Your task to perform on an android device: toggle notification dots Image 0: 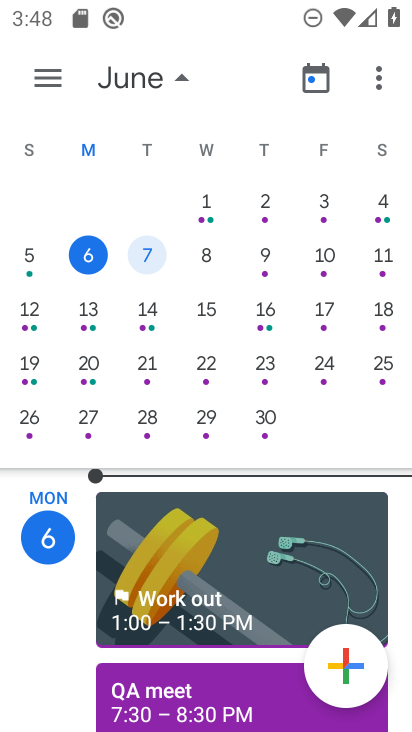
Step 0: press home button
Your task to perform on an android device: toggle notification dots Image 1: 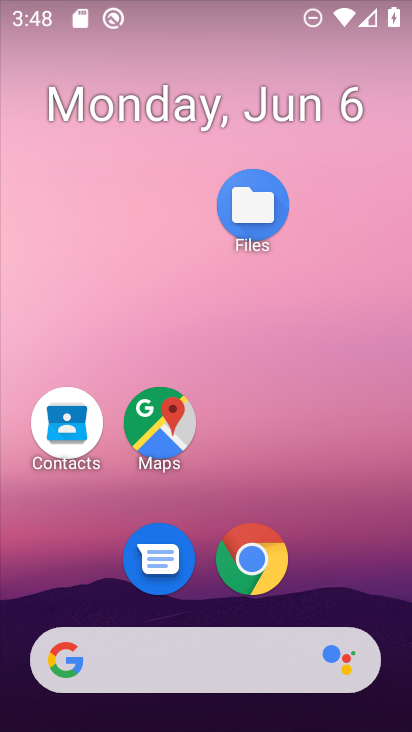
Step 1: click (274, 569)
Your task to perform on an android device: toggle notification dots Image 2: 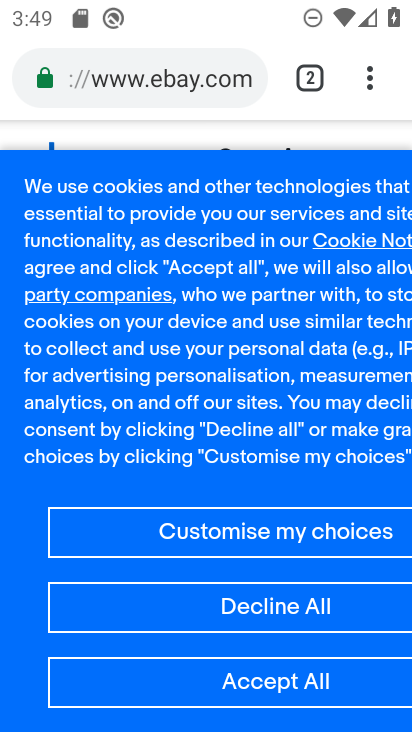
Step 2: click (360, 80)
Your task to perform on an android device: toggle notification dots Image 3: 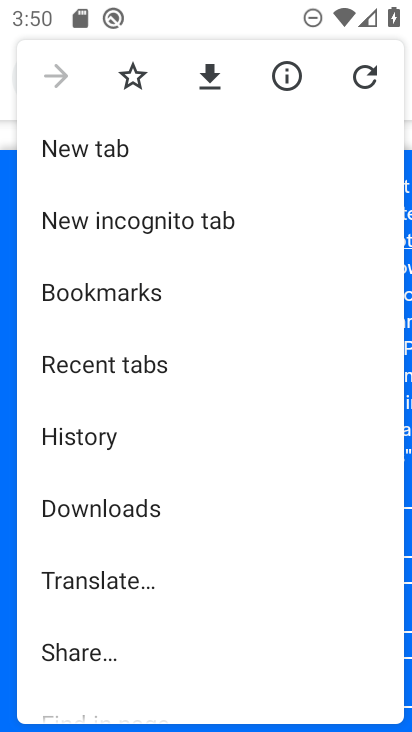
Step 3: press home button
Your task to perform on an android device: toggle notification dots Image 4: 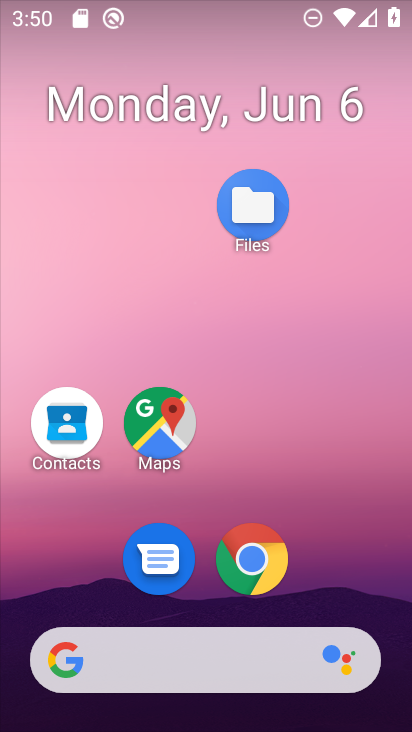
Step 4: drag from (178, 606) to (178, 7)
Your task to perform on an android device: toggle notification dots Image 5: 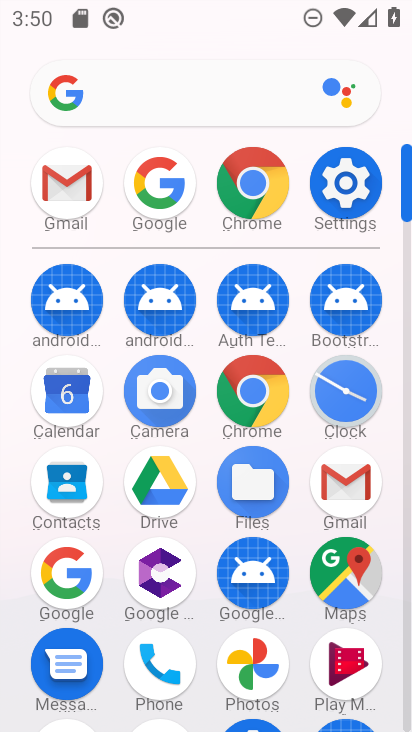
Step 5: click (331, 196)
Your task to perform on an android device: toggle notification dots Image 6: 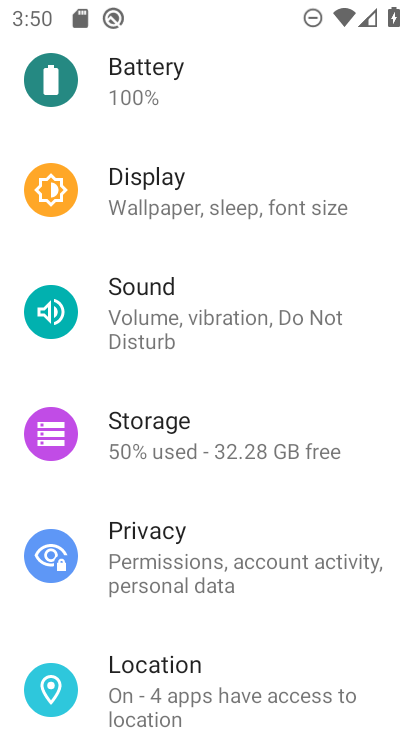
Step 6: drag from (331, 221) to (359, 677)
Your task to perform on an android device: toggle notification dots Image 7: 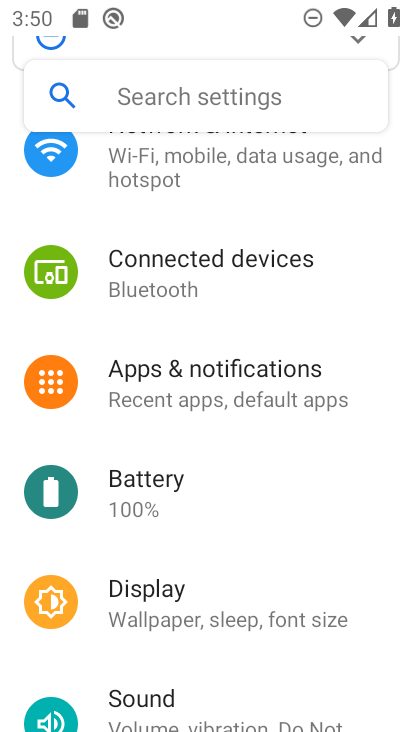
Step 7: click (253, 375)
Your task to perform on an android device: toggle notification dots Image 8: 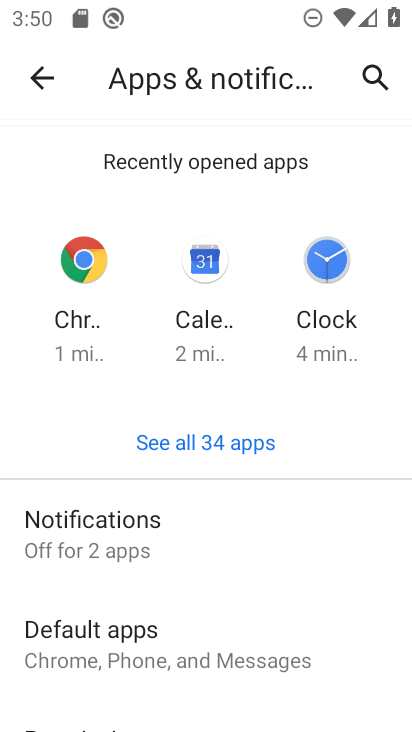
Step 8: click (257, 525)
Your task to perform on an android device: toggle notification dots Image 9: 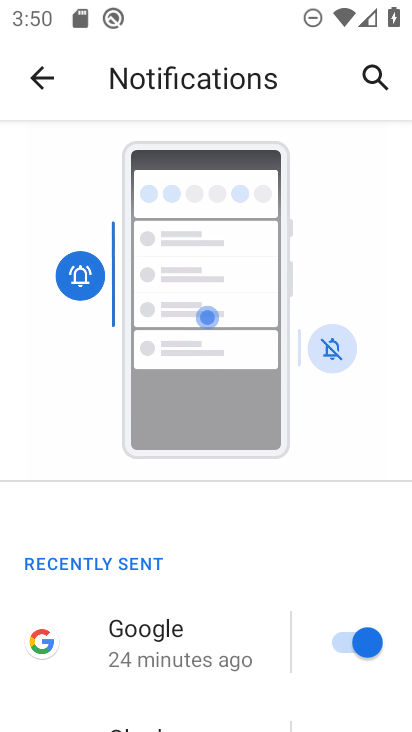
Step 9: drag from (224, 632) to (281, 64)
Your task to perform on an android device: toggle notification dots Image 10: 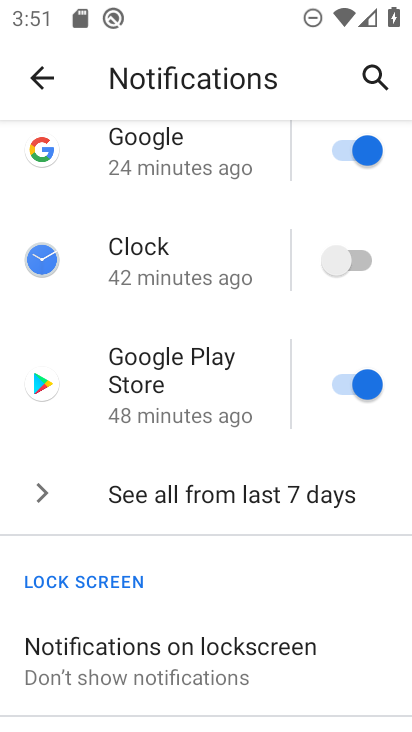
Step 10: drag from (206, 668) to (215, 147)
Your task to perform on an android device: toggle notification dots Image 11: 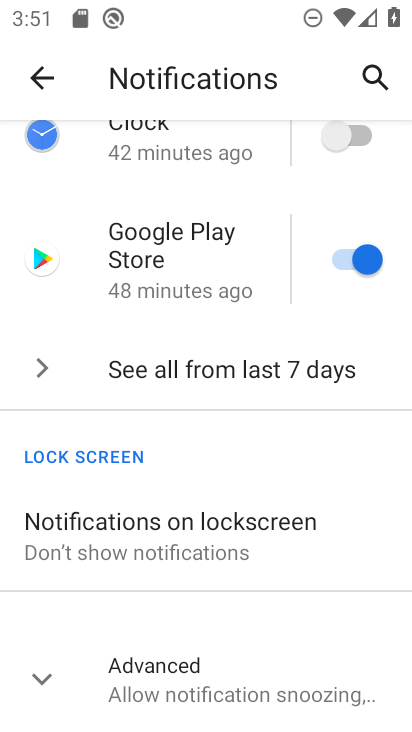
Step 11: click (200, 669)
Your task to perform on an android device: toggle notification dots Image 12: 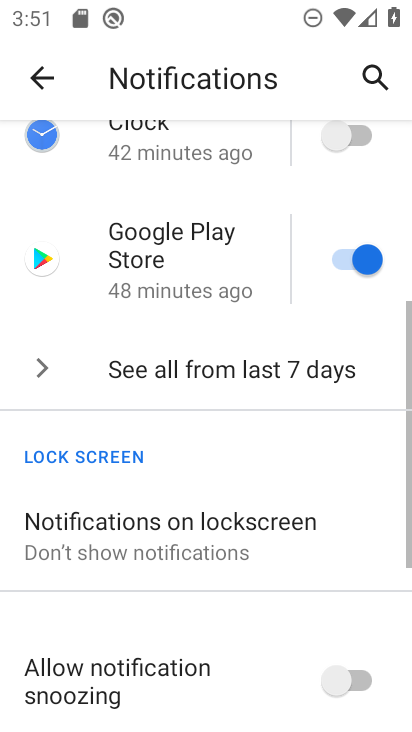
Step 12: drag from (218, 673) to (223, 286)
Your task to perform on an android device: toggle notification dots Image 13: 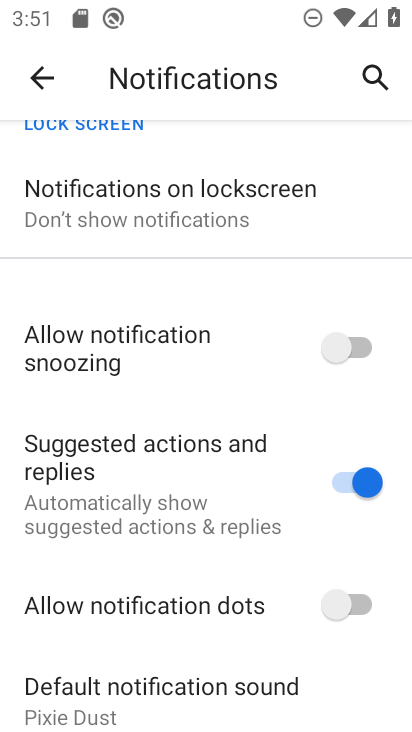
Step 13: click (381, 610)
Your task to perform on an android device: toggle notification dots Image 14: 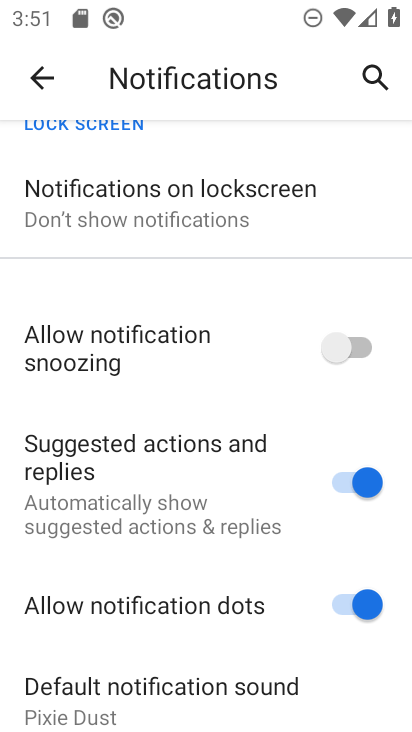
Step 14: task complete